Your task to perform on an android device: Go to accessibility settings Image 0: 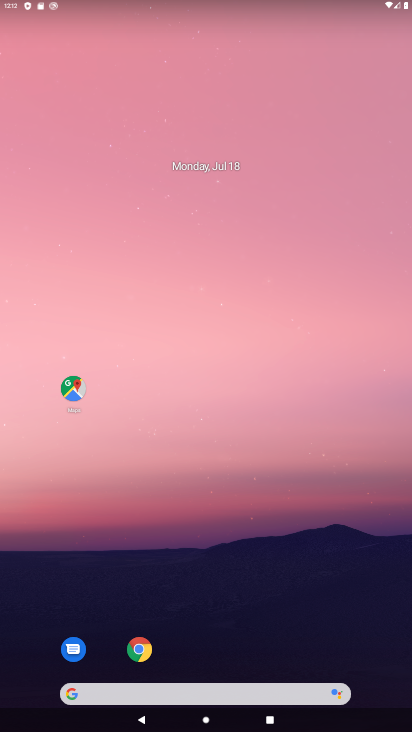
Step 0: drag from (187, 486) to (190, 222)
Your task to perform on an android device: Go to accessibility settings Image 1: 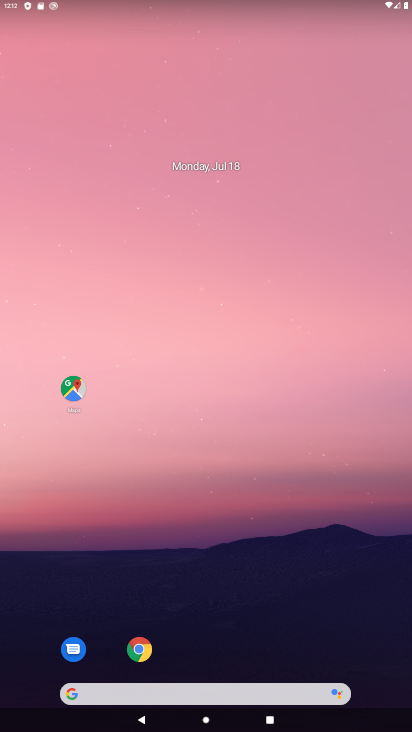
Step 1: drag from (208, 166) to (205, 34)
Your task to perform on an android device: Go to accessibility settings Image 2: 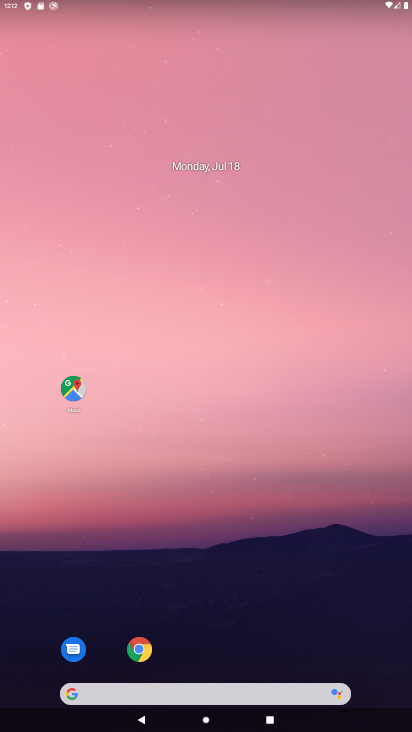
Step 2: drag from (182, 540) to (186, 32)
Your task to perform on an android device: Go to accessibility settings Image 3: 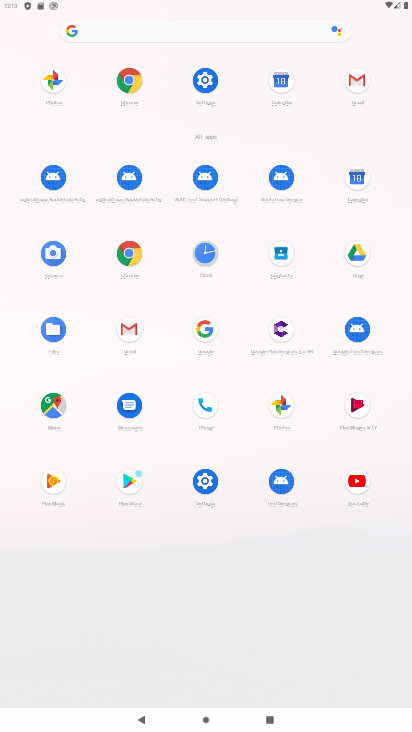
Step 3: click (199, 74)
Your task to perform on an android device: Go to accessibility settings Image 4: 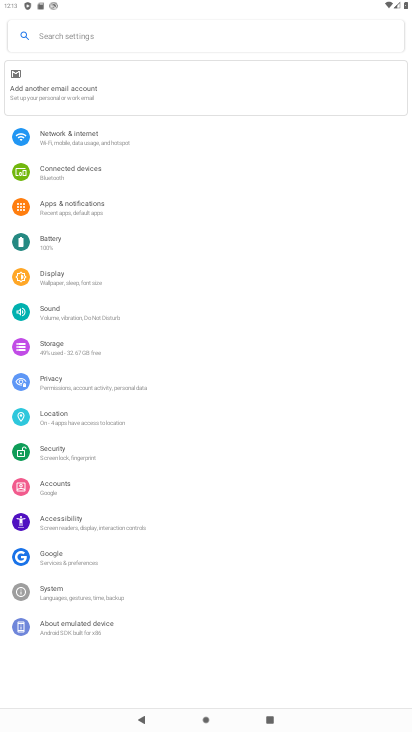
Step 4: click (94, 535)
Your task to perform on an android device: Go to accessibility settings Image 5: 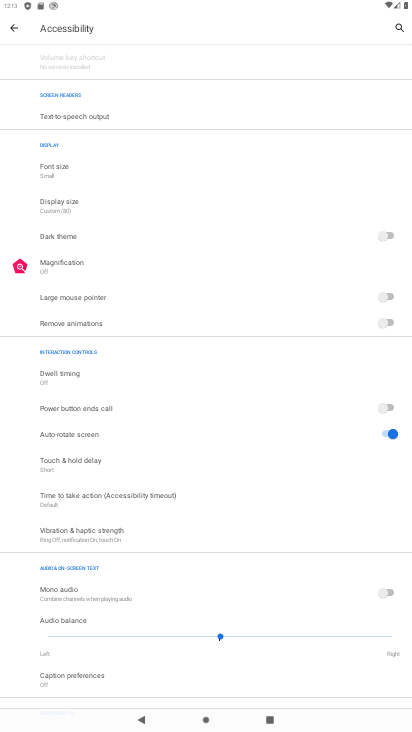
Step 5: task complete